Your task to perform on an android device: What is the recent news? Image 0: 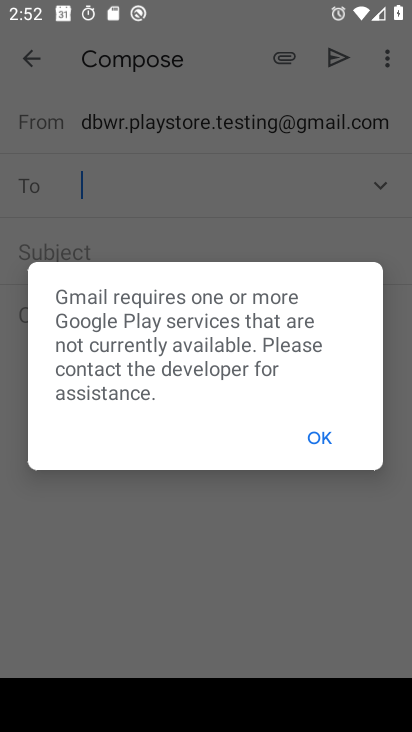
Step 0: press home button
Your task to perform on an android device: What is the recent news? Image 1: 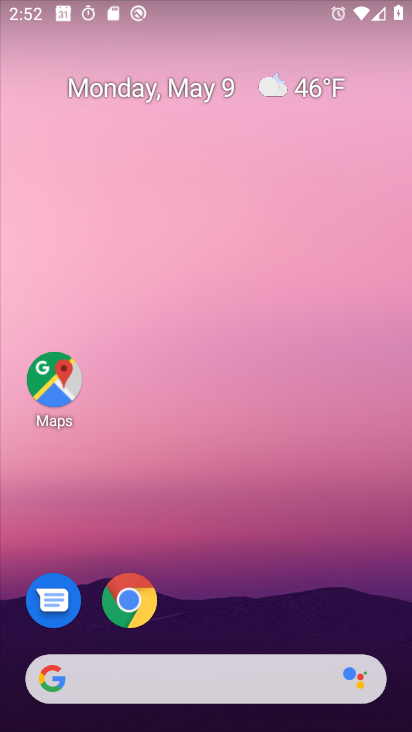
Step 1: task complete